Your task to perform on an android device: Open the web browser Image 0: 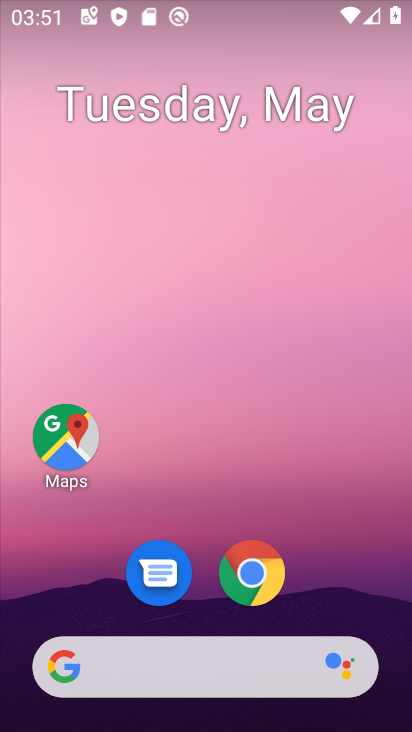
Step 0: click (243, 576)
Your task to perform on an android device: Open the web browser Image 1: 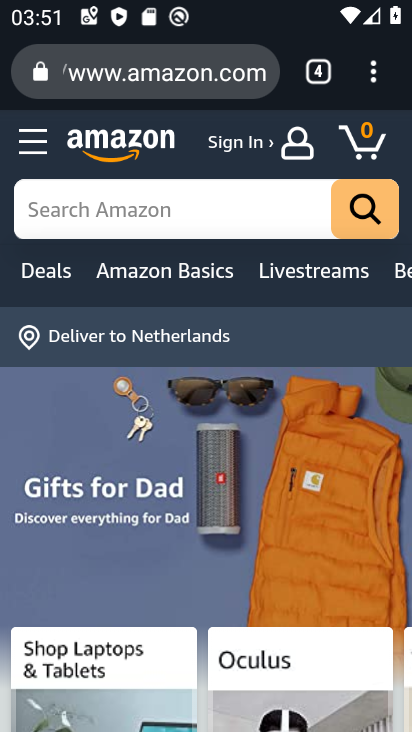
Step 1: task complete